Your task to perform on an android device: add a contact in the contacts app Image 0: 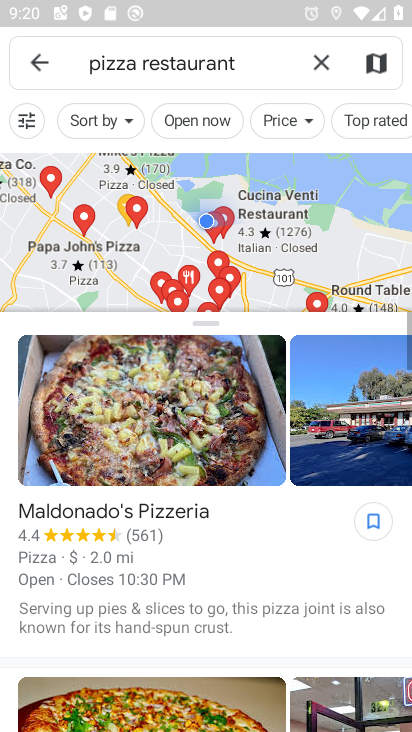
Step 0: press home button
Your task to perform on an android device: add a contact in the contacts app Image 1: 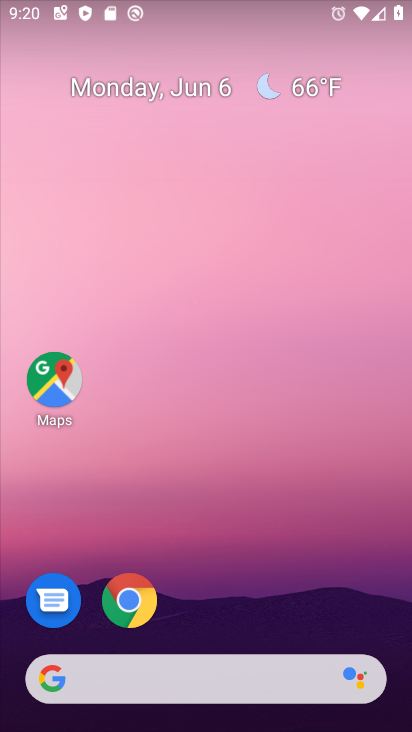
Step 1: drag from (15, 675) to (243, 199)
Your task to perform on an android device: add a contact in the contacts app Image 2: 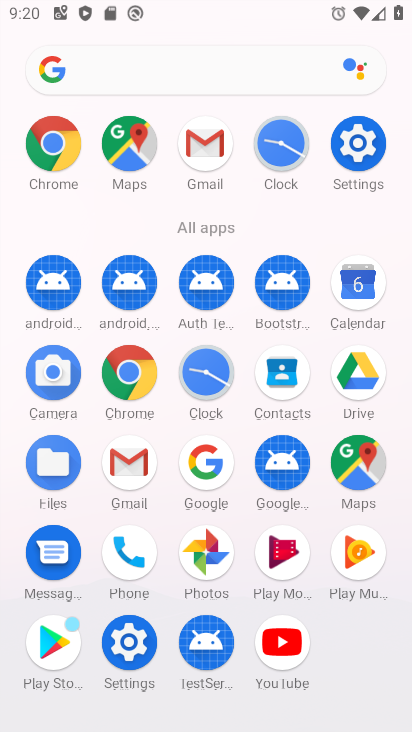
Step 2: click (128, 540)
Your task to perform on an android device: add a contact in the contacts app Image 3: 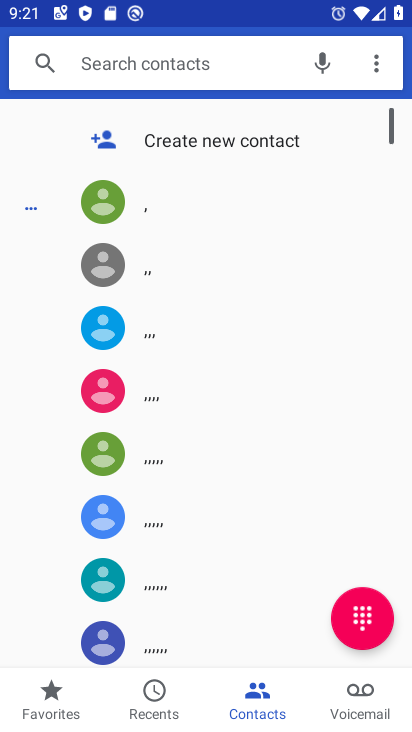
Step 3: click (174, 133)
Your task to perform on an android device: add a contact in the contacts app Image 4: 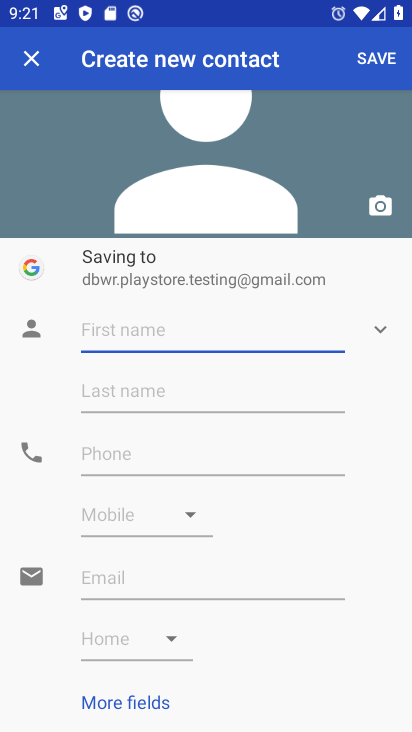
Step 4: click (133, 333)
Your task to perform on an android device: add a contact in the contacts app Image 5: 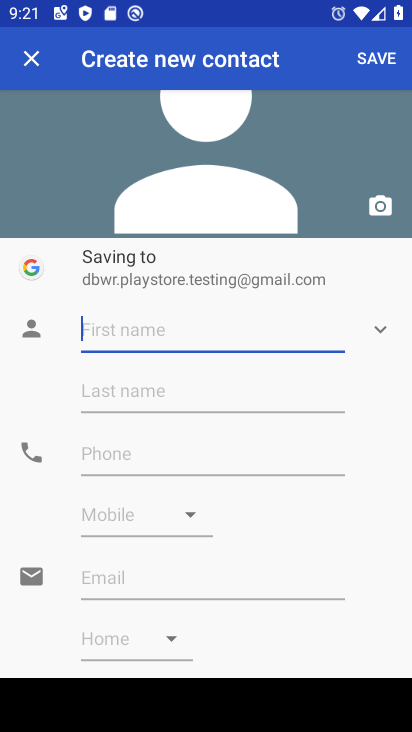
Step 5: type "gfdsa"
Your task to perform on an android device: add a contact in the contacts app Image 6: 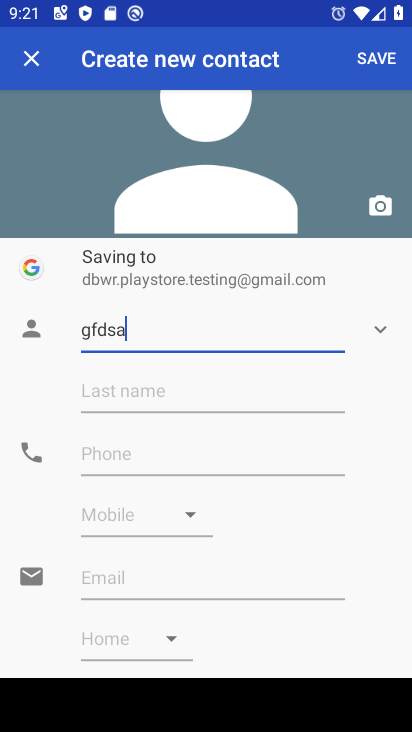
Step 6: type ""
Your task to perform on an android device: add a contact in the contacts app Image 7: 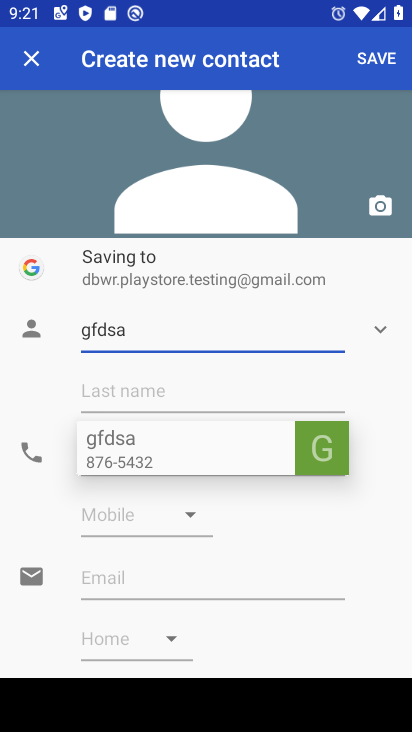
Step 7: click (161, 337)
Your task to perform on an android device: add a contact in the contacts app Image 8: 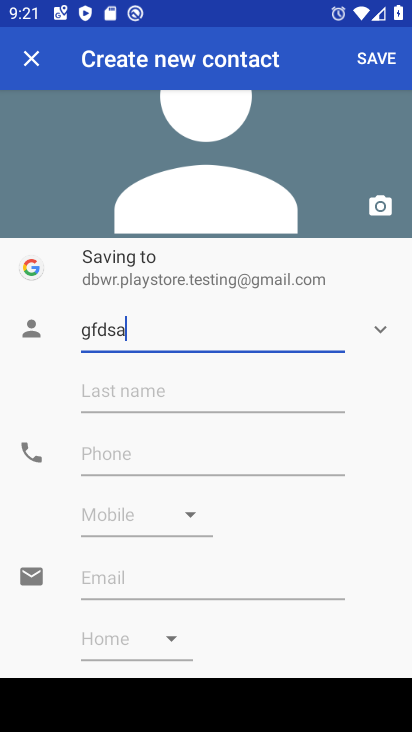
Step 8: click (359, 64)
Your task to perform on an android device: add a contact in the contacts app Image 9: 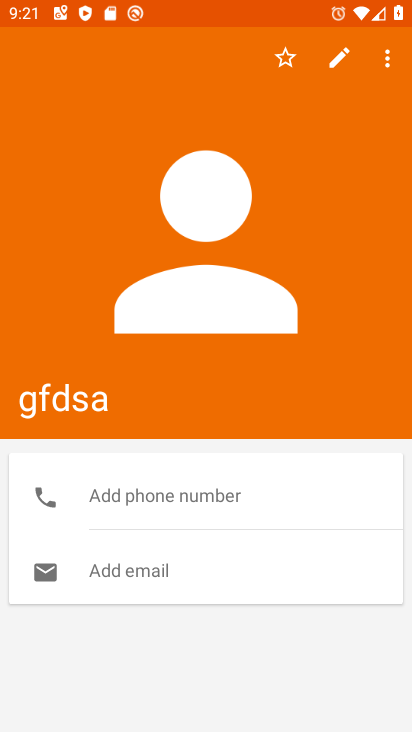
Step 9: task complete